Your task to perform on an android device: Open Yahoo.com Image 0: 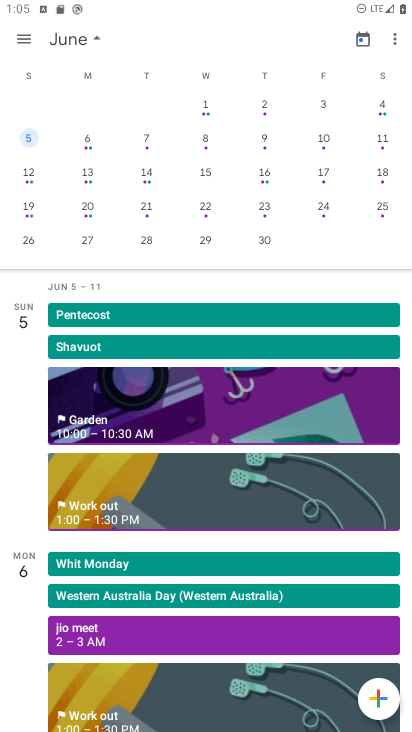
Step 0: press home button
Your task to perform on an android device: Open Yahoo.com Image 1: 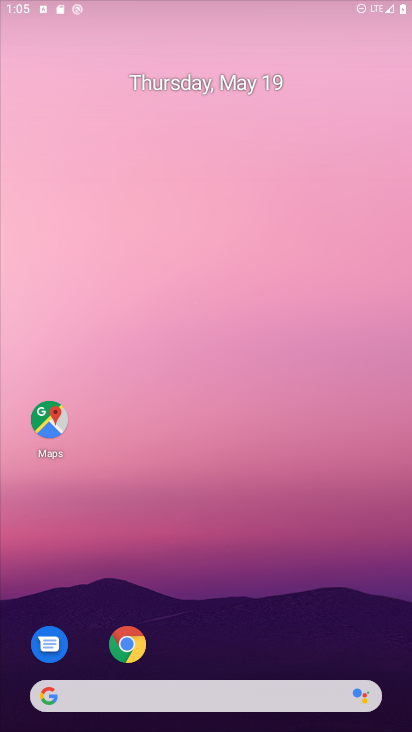
Step 1: drag from (389, 644) to (193, 12)
Your task to perform on an android device: Open Yahoo.com Image 2: 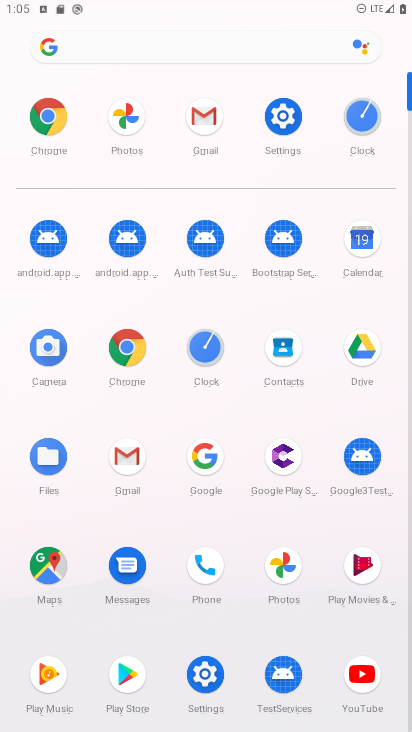
Step 2: click (130, 368)
Your task to perform on an android device: Open Yahoo.com Image 3: 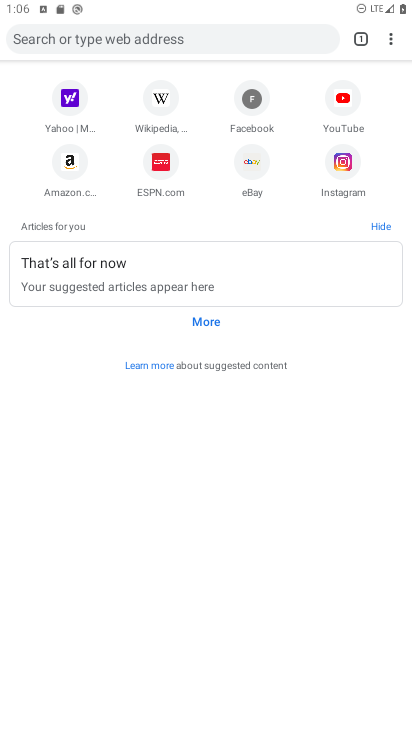
Step 3: click (81, 112)
Your task to perform on an android device: Open Yahoo.com Image 4: 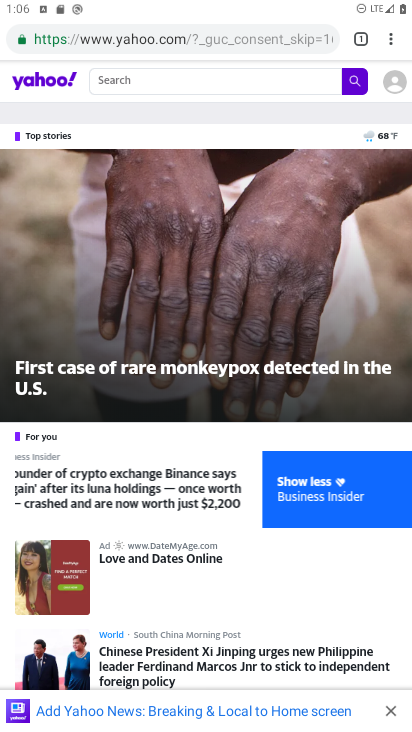
Step 4: task complete